Your task to perform on an android device: open wifi settings Image 0: 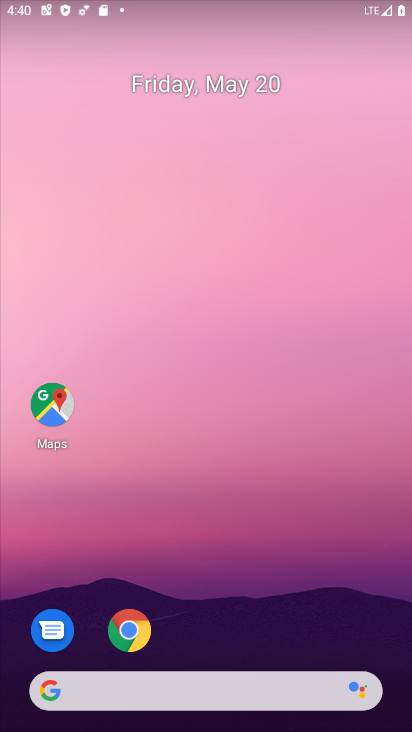
Step 0: drag from (269, 584) to (310, 23)
Your task to perform on an android device: open wifi settings Image 1: 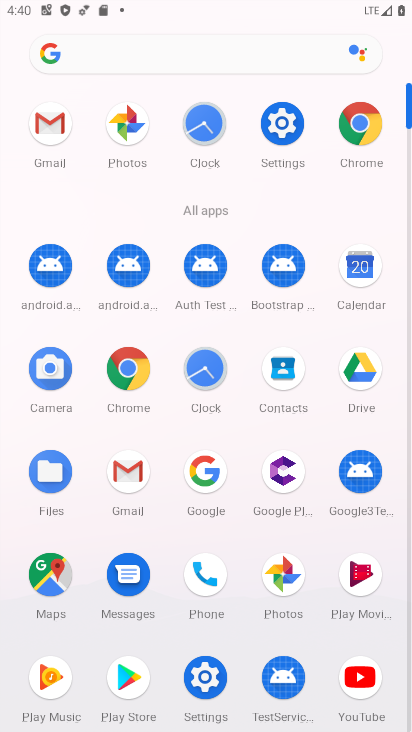
Step 1: click (293, 115)
Your task to perform on an android device: open wifi settings Image 2: 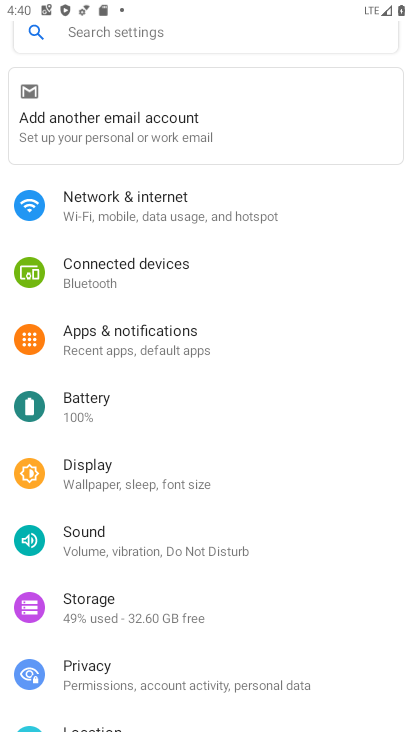
Step 2: click (221, 209)
Your task to perform on an android device: open wifi settings Image 3: 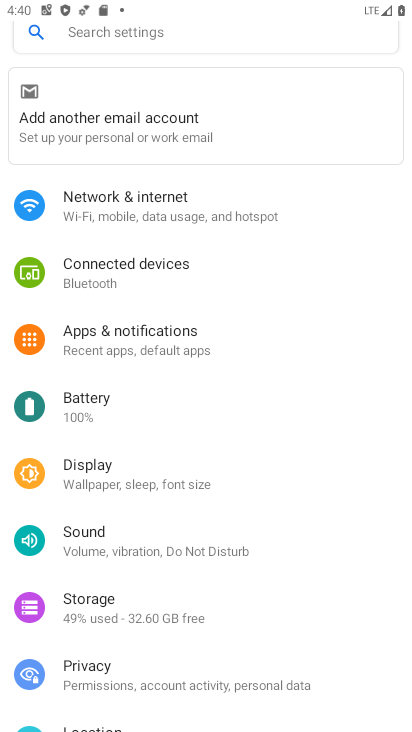
Step 3: click (150, 201)
Your task to perform on an android device: open wifi settings Image 4: 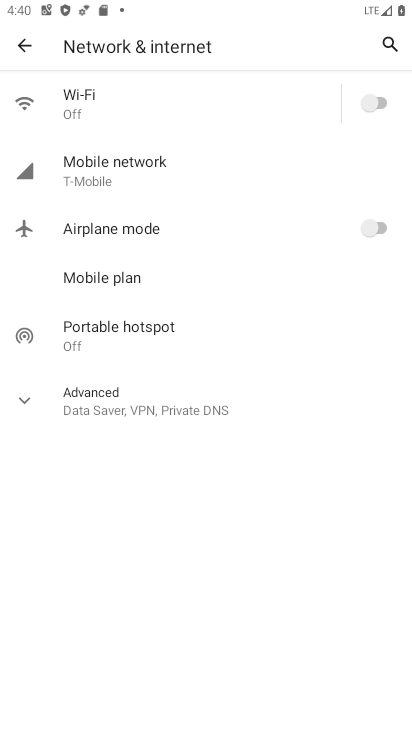
Step 4: click (193, 99)
Your task to perform on an android device: open wifi settings Image 5: 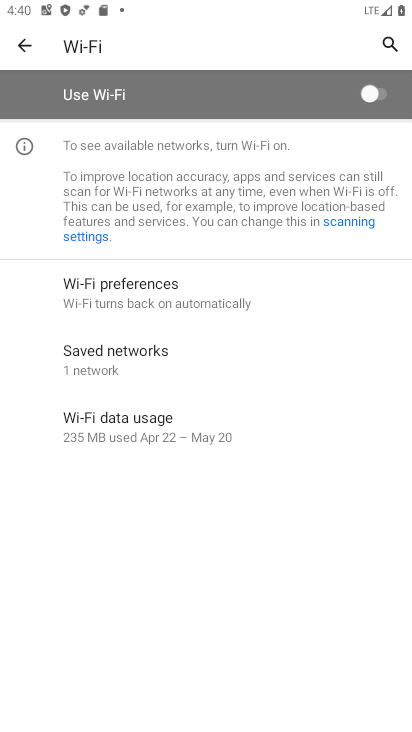
Step 5: task complete